Your task to perform on an android device: Open the stopwatch Image 0: 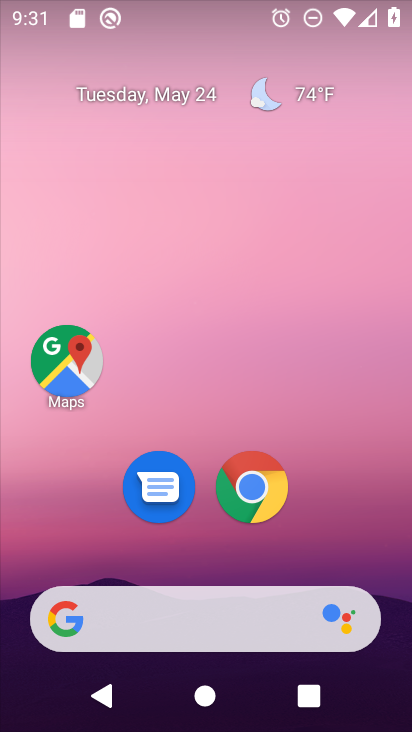
Step 0: drag from (385, 590) to (394, 1)
Your task to perform on an android device: Open the stopwatch Image 1: 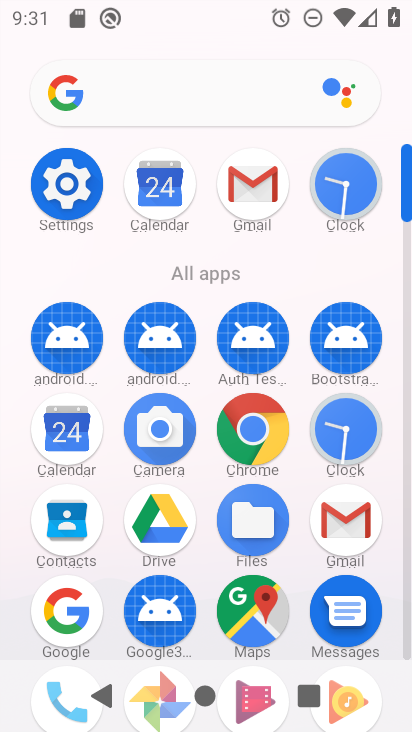
Step 1: click (346, 185)
Your task to perform on an android device: Open the stopwatch Image 2: 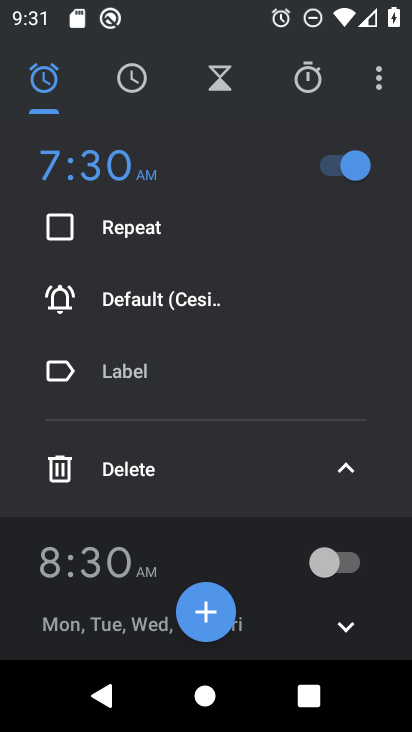
Step 2: click (304, 91)
Your task to perform on an android device: Open the stopwatch Image 3: 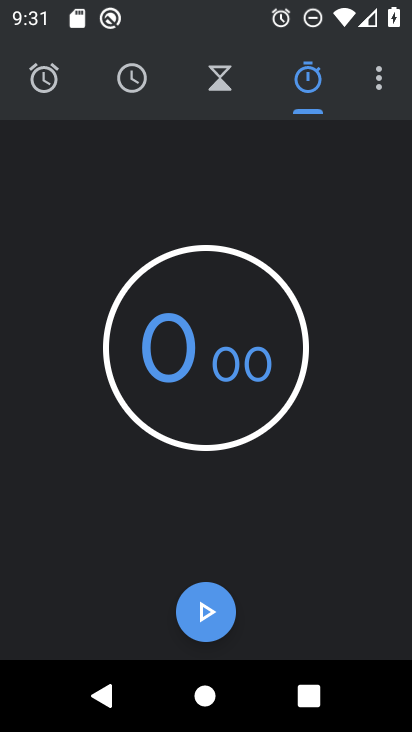
Step 3: task complete